Your task to perform on an android device: Do I have any events today? Image 0: 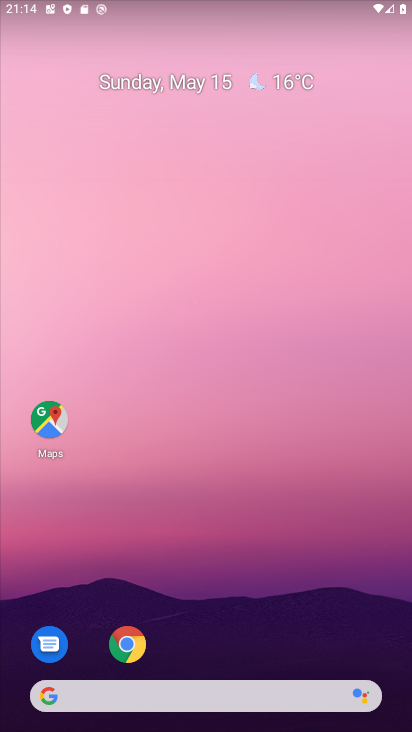
Step 0: drag from (242, 633) to (321, 53)
Your task to perform on an android device: Do I have any events today? Image 1: 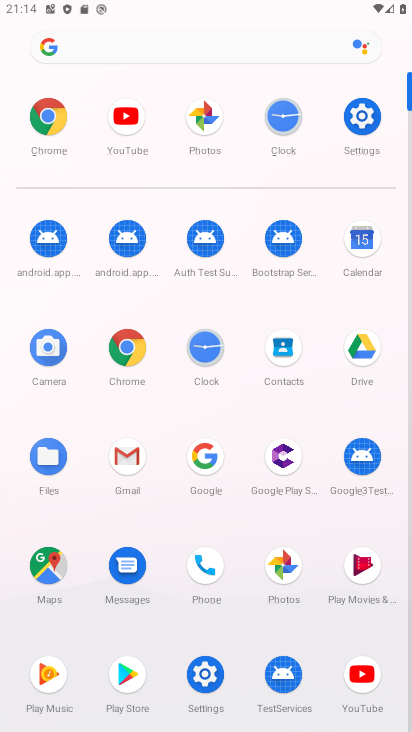
Step 1: click (367, 245)
Your task to perform on an android device: Do I have any events today? Image 2: 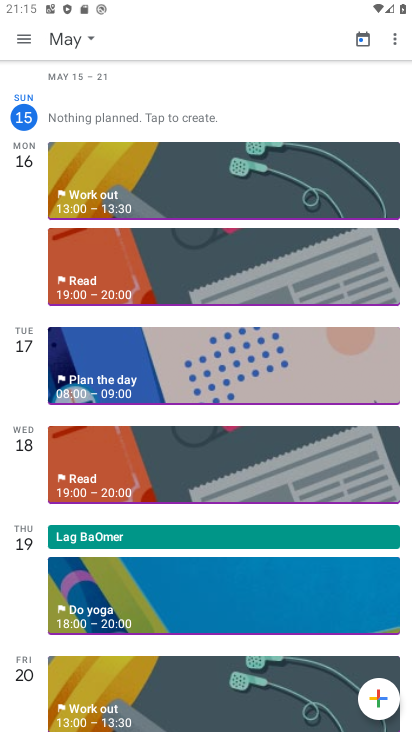
Step 2: drag from (213, 280) to (208, 558)
Your task to perform on an android device: Do I have any events today? Image 3: 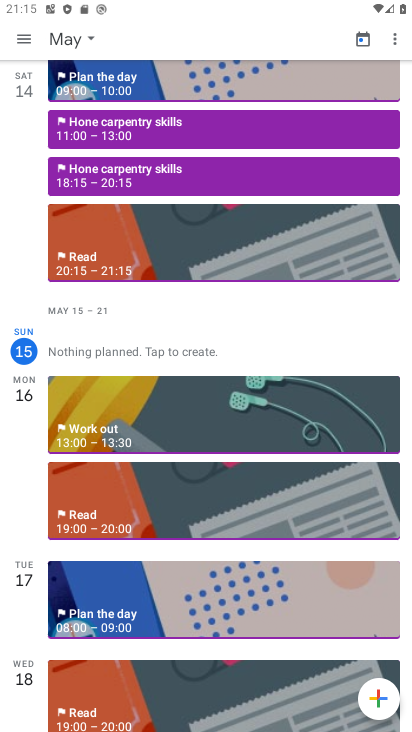
Step 3: click (96, 372)
Your task to perform on an android device: Do I have any events today? Image 4: 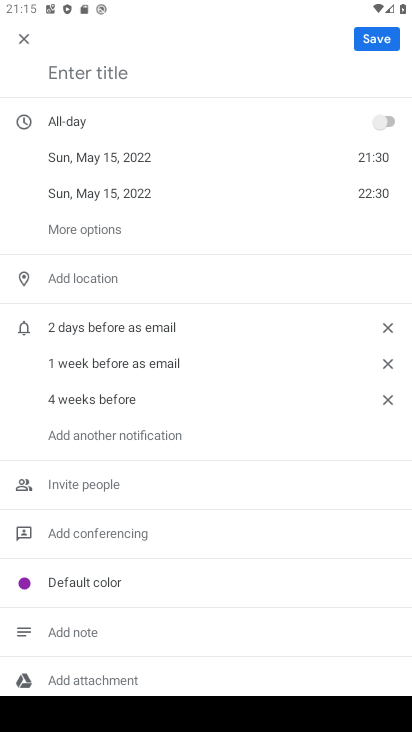
Step 4: click (26, 48)
Your task to perform on an android device: Do I have any events today? Image 5: 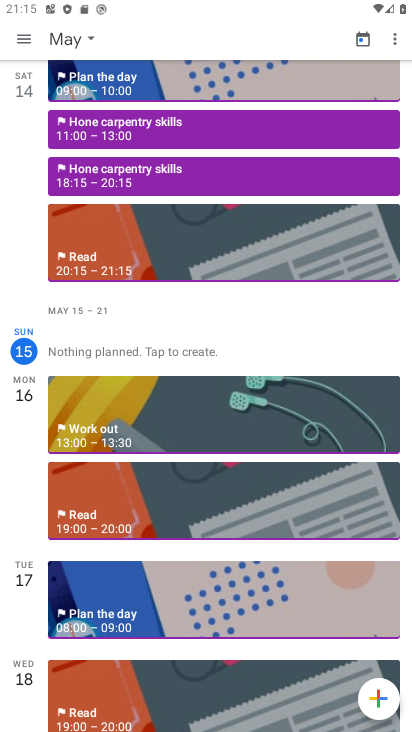
Step 5: click (139, 504)
Your task to perform on an android device: Do I have any events today? Image 6: 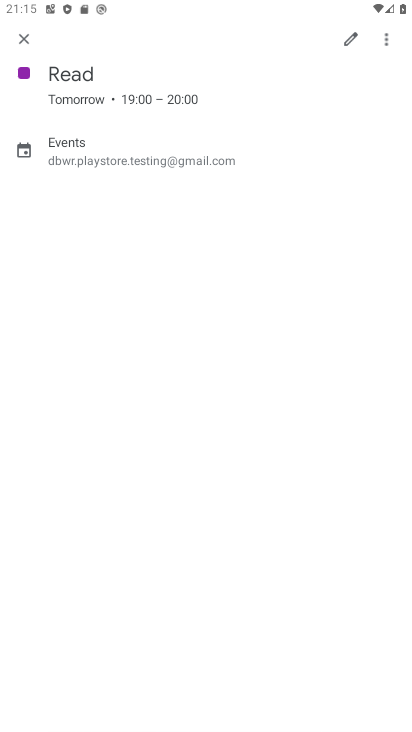
Step 6: task complete